Your task to perform on an android device: open app "Roku - Official Remote Control" (install if not already installed) and enter user name: "autumnal@gmail.com" and password: "stuffing" Image 0: 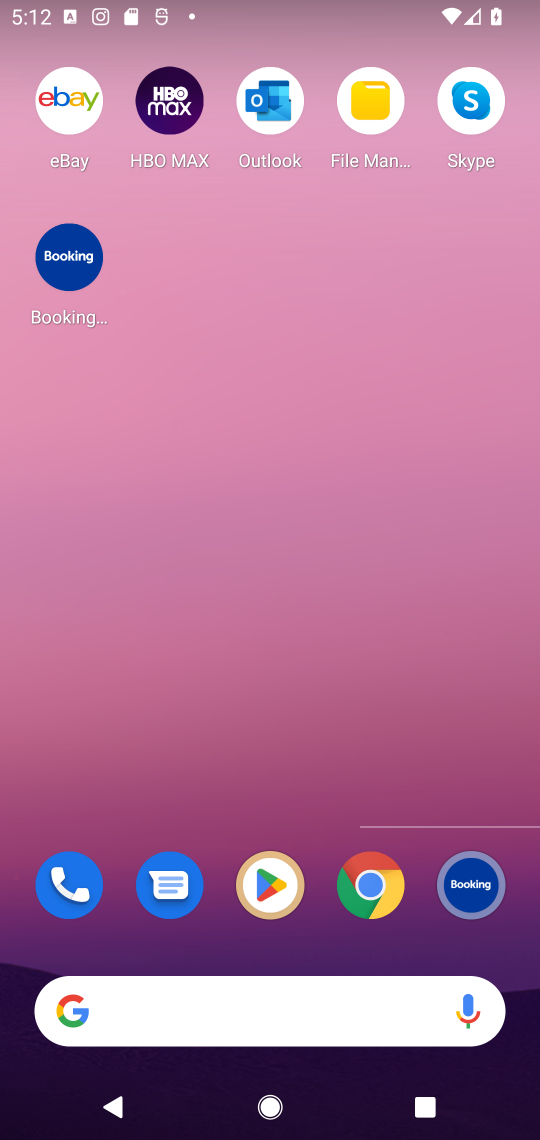
Step 0: press home button
Your task to perform on an android device: open app "Roku - Official Remote Control" (install if not already installed) and enter user name: "autumnal@gmail.com" and password: "stuffing" Image 1: 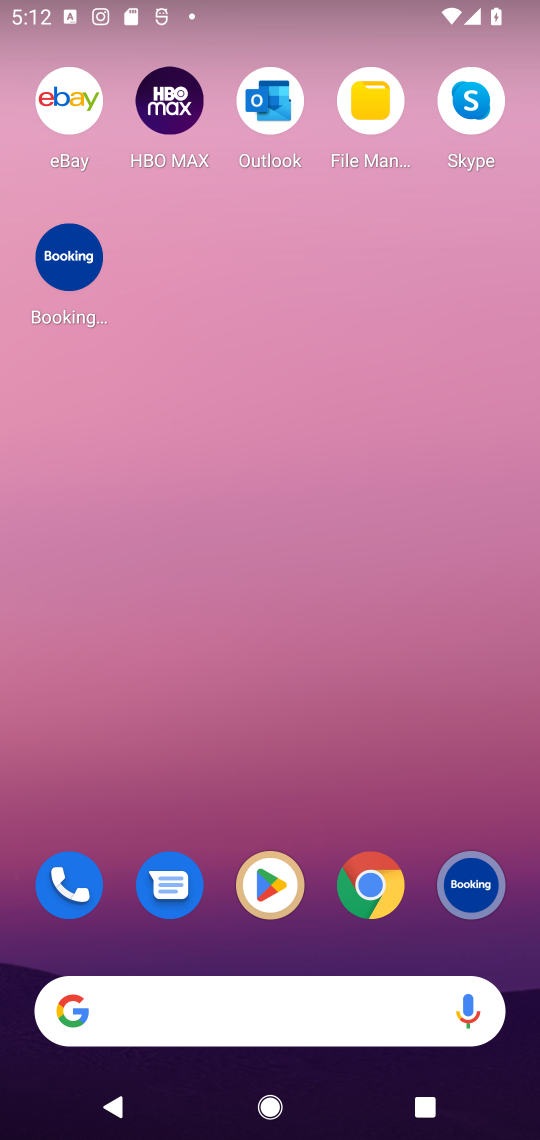
Step 1: click (262, 878)
Your task to perform on an android device: open app "Roku - Official Remote Control" (install if not already installed) and enter user name: "autumnal@gmail.com" and password: "stuffing" Image 2: 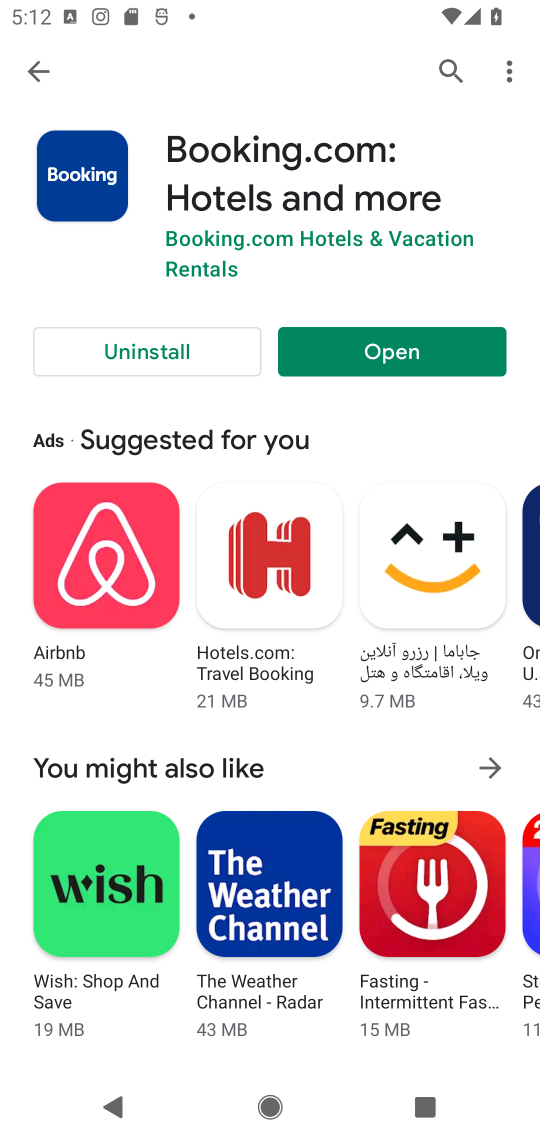
Step 2: click (444, 73)
Your task to perform on an android device: open app "Roku - Official Remote Control" (install if not already installed) and enter user name: "autumnal@gmail.com" and password: "stuffing" Image 3: 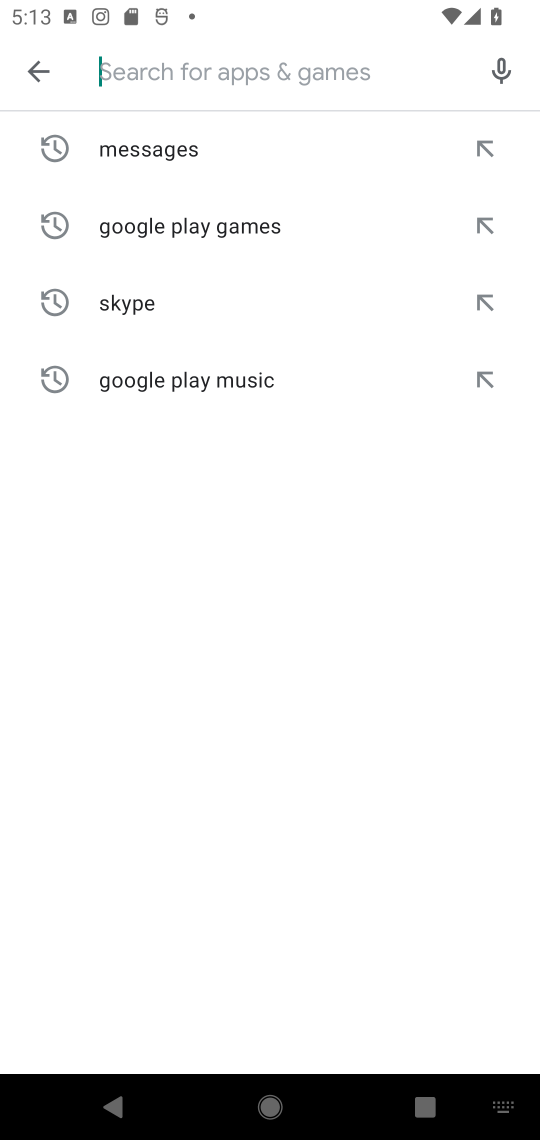
Step 3: type "Roku - Official Remote Control"
Your task to perform on an android device: open app "Roku - Official Remote Control" (install if not already installed) and enter user name: "autumnal@gmail.com" and password: "stuffing" Image 4: 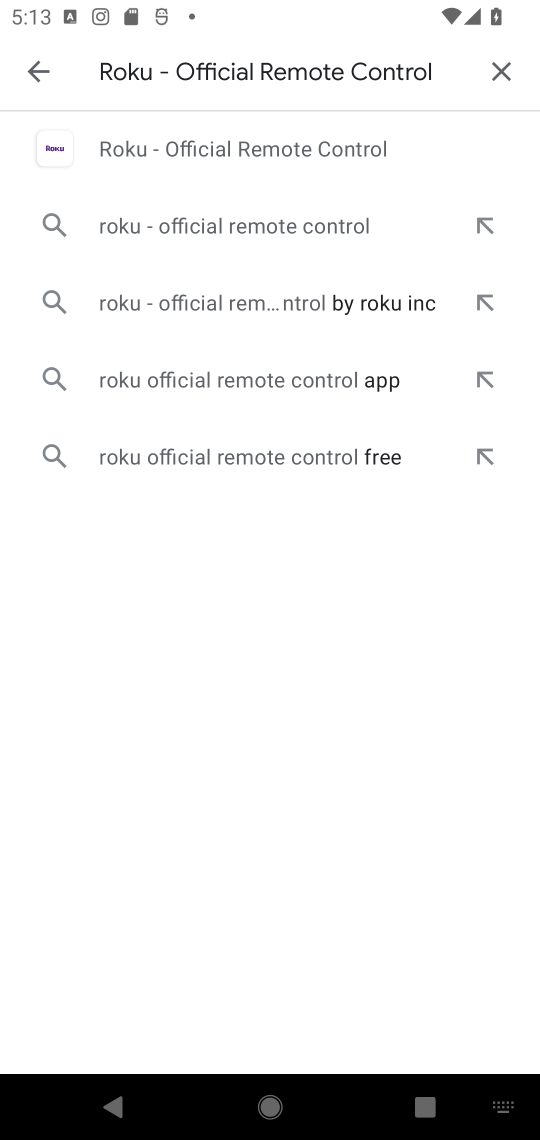
Step 4: click (271, 148)
Your task to perform on an android device: open app "Roku - Official Remote Control" (install if not already installed) and enter user name: "autumnal@gmail.com" and password: "stuffing" Image 5: 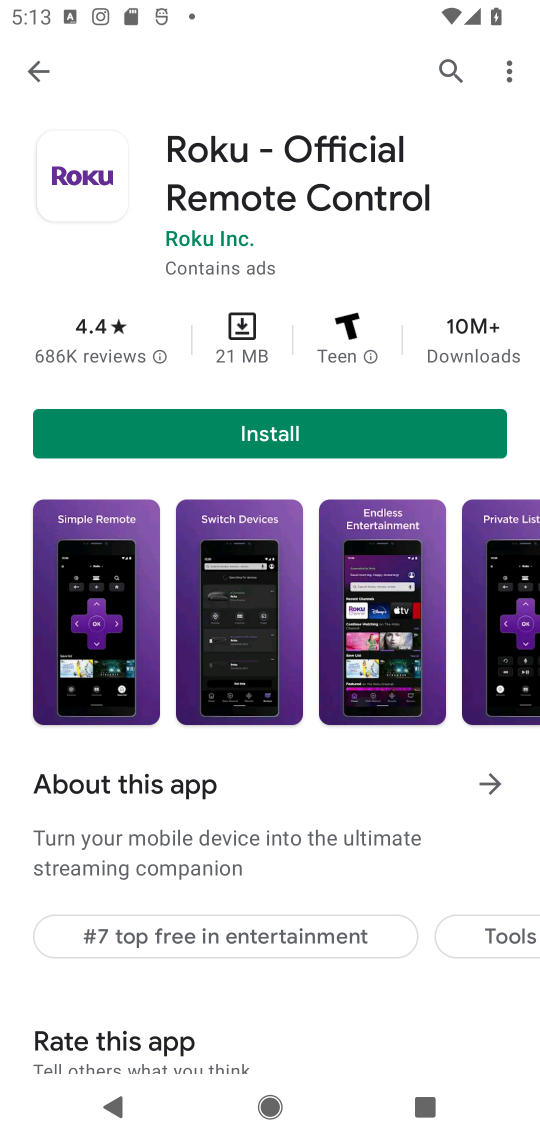
Step 5: click (299, 418)
Your task to perform on an android device: open app "Roku - Official Remote Control" (install if not already installed) and enter user name: "autumnal@gmail.com" and password: "stuffing" Image 6: 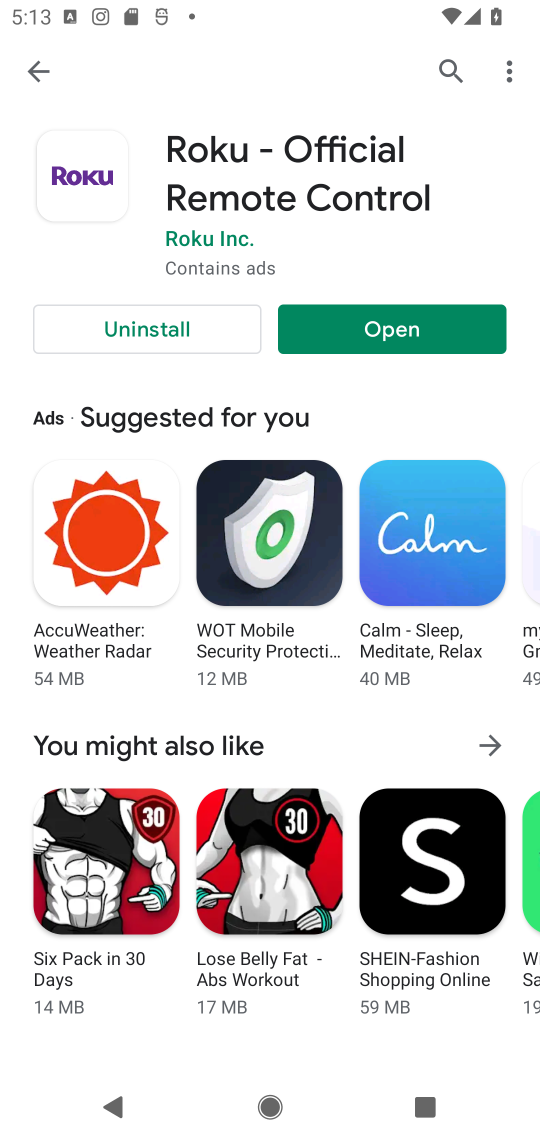
Step 6: click (397, 341)
Your task to perform on an android device: open app "Roku - Official Remote Control" (install if not already installed) and enter user name: "autumnal@gmail.com" and password: "stuffing" Image 7: 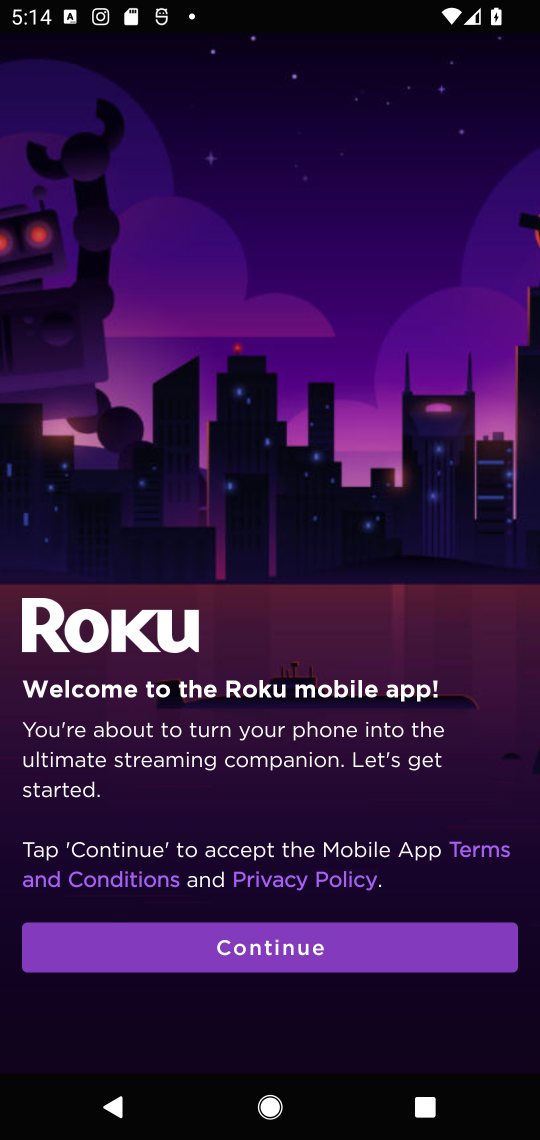
Step 7: click (322, 954)
Your task to perform on an android device: open app "Roku - Official Remote Control" (install if not already installed) and enter user name: "autumnal@gmail.com" and password: "stuffing" Image 8: 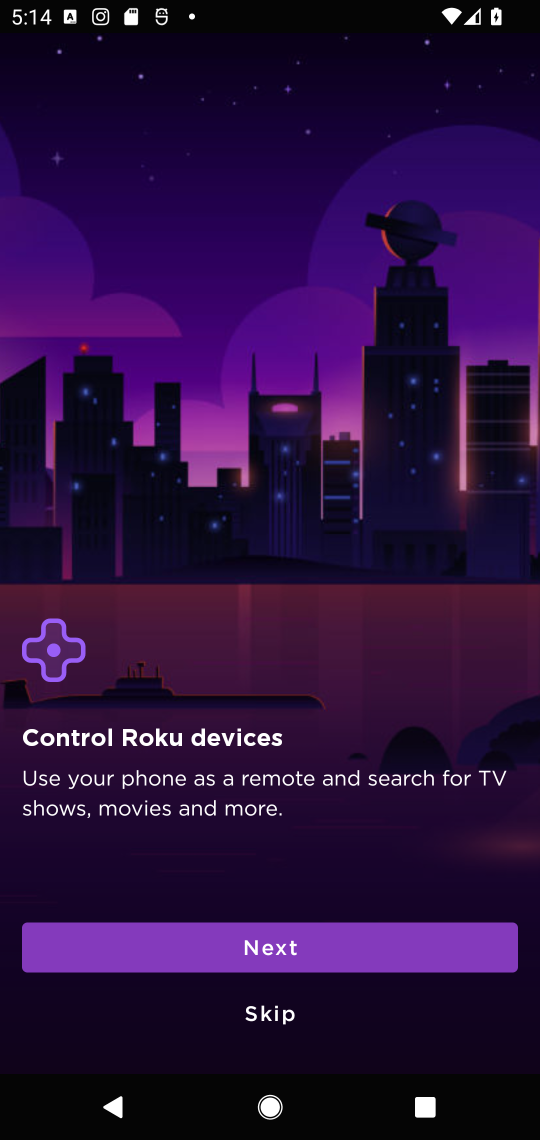
Step 8: click (273, 1026)
Your task to perform on an android device: open app "Roku - Official Remote Control" (install if not already installed) and enter user name: "autumnal@gmail.com" and password: "stuffing" Image 9: 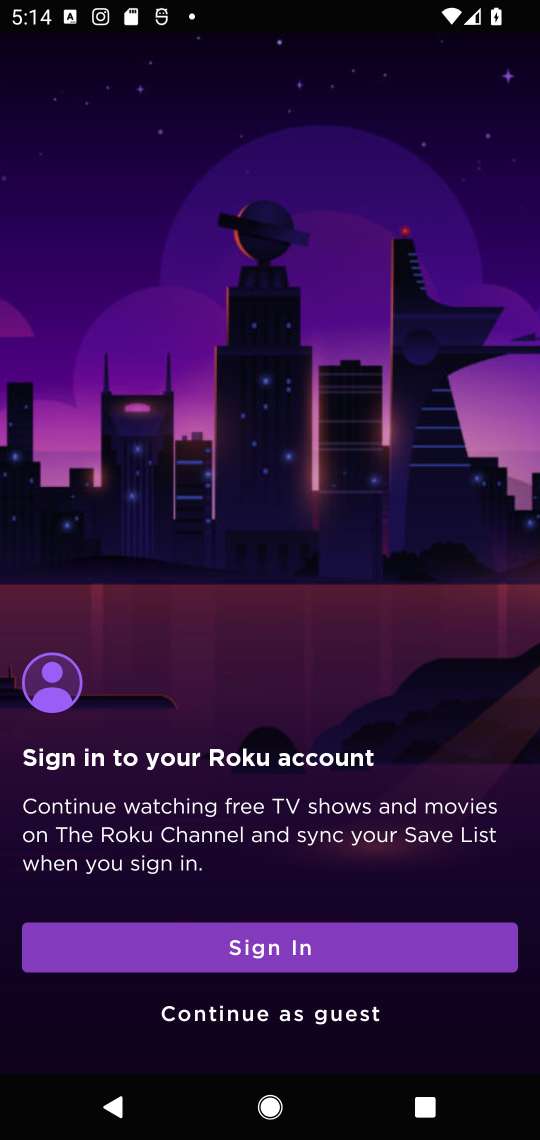
Step 9: click (277, 960)
Your task to perform on an android device: open app "Roku - Official Remote Control" (install if not already installed) and enter user name: "autumnal@gmail.com" and password: "stuffing" Image 10: 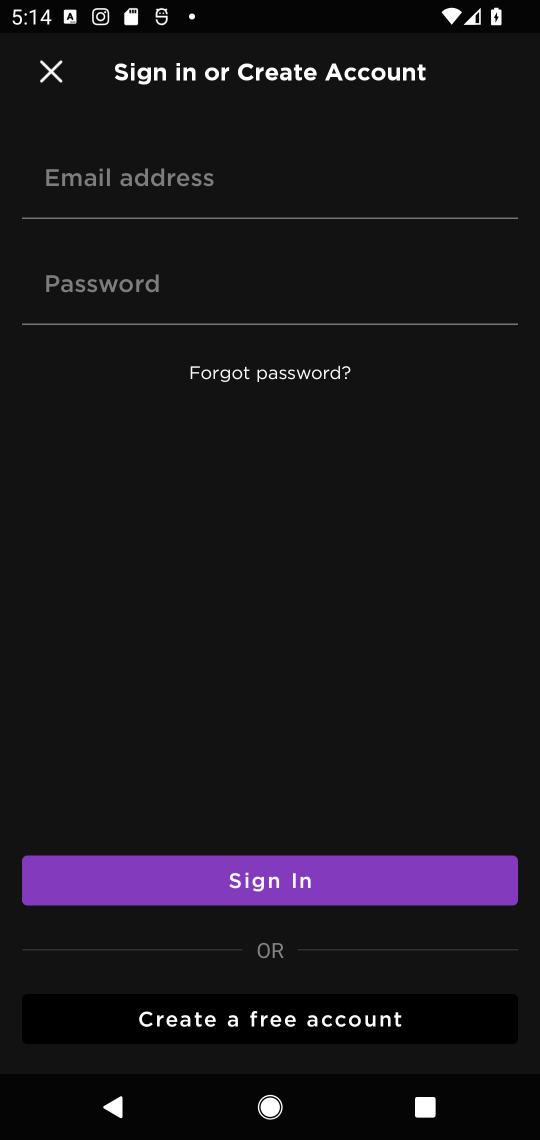
Step 10: click (191, 191)
Your task to perform on an android device: open app "Roku - Official Remote Control" (install if not already installed) and enter user name: "autumnal@gmail.com" and password: "stuffing" Image 11: 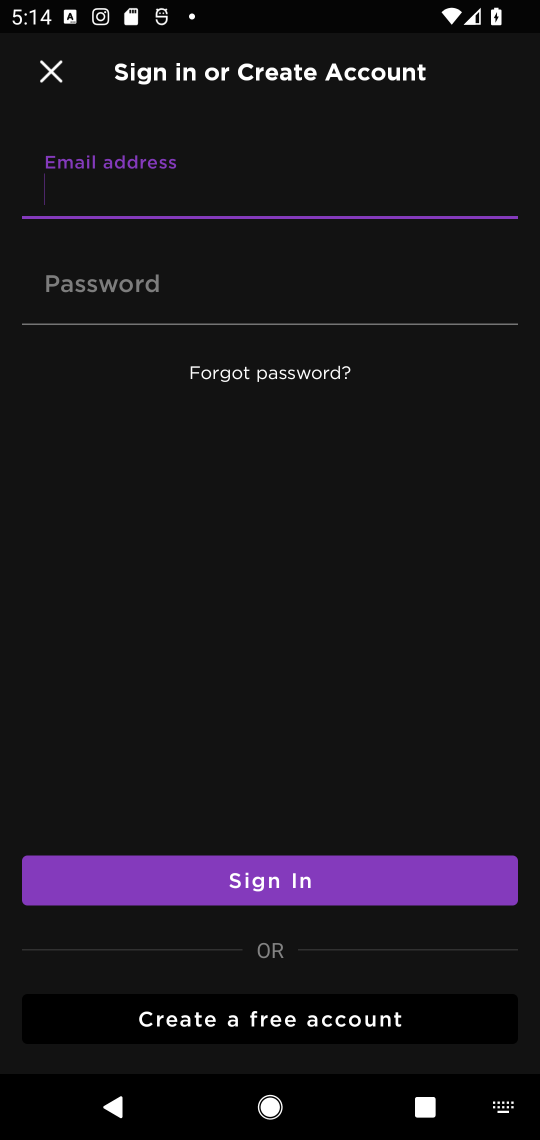
Step 11: click (181, 179)
Your task to perform on an android device: open app "Roku - Official Remote Control" (install if not already installed) and enter user name: "autumnal@gmail.com" and password: "stuffing" Image 12: 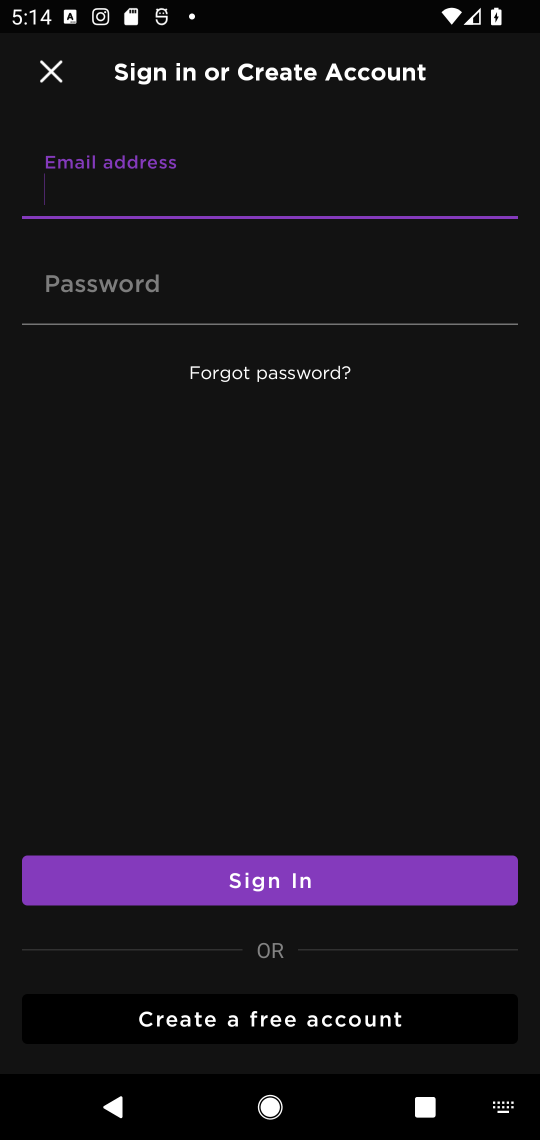
Step 12: type "autumnal@gmail.com"
Your task to perform on an android device: open app "Roku - Official Remote Control" (install if not already installed) and enter user name: "autumnal@gmail.com" and password: "stuffing" Image 13: 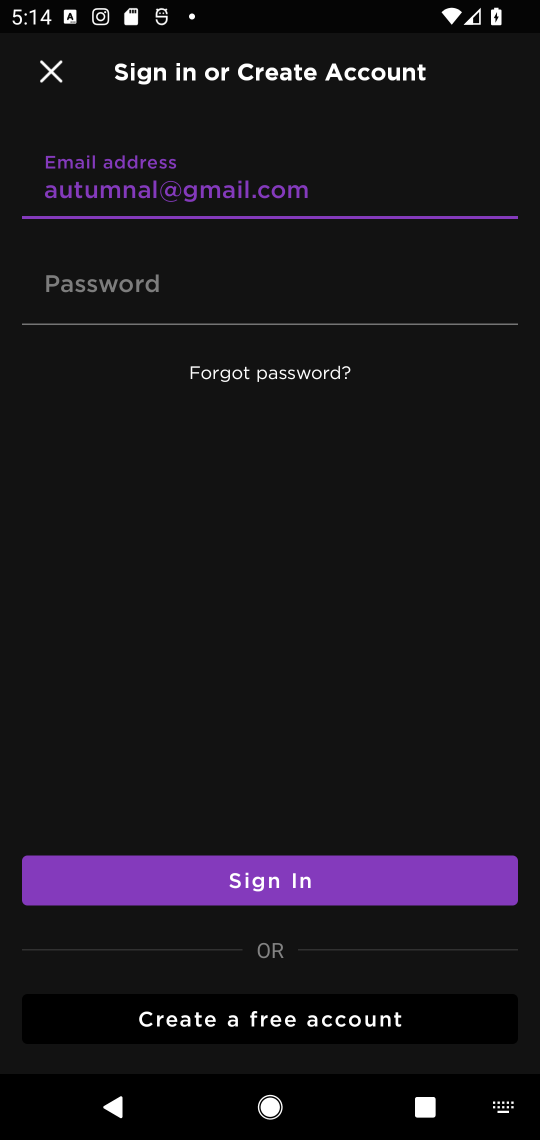
Step 13: click (163, 266)
Your task to perform on an android device: open app "Roku - Official Remote Control" (install if not already installed) and enter user name: "autumnal@gmail.com" and password: "stuffing" Image 14: 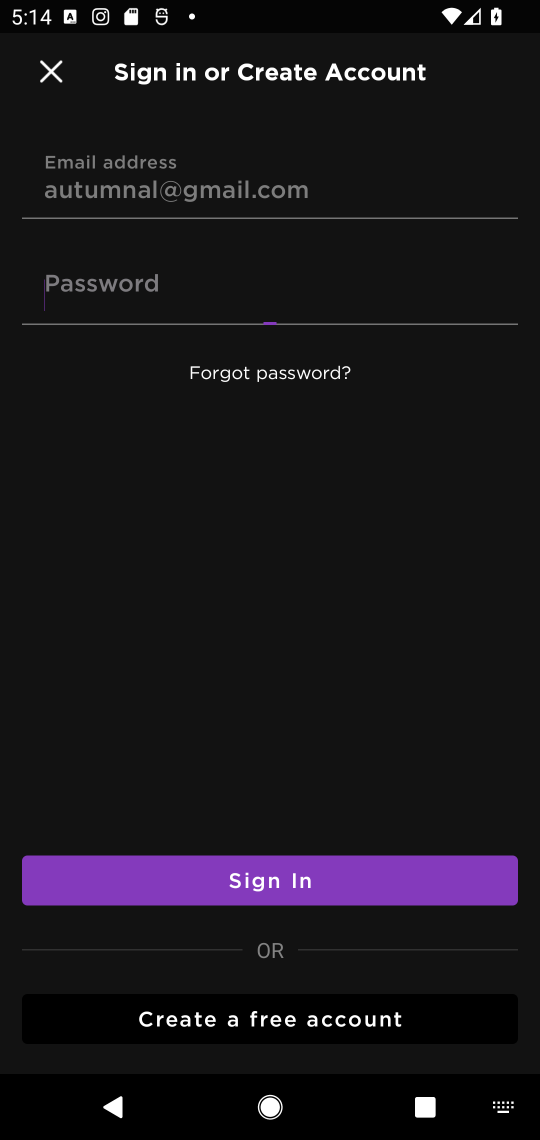
Step 14: click (161, 272)
Your task to perform on an android device: open app "Roku - Official Remote Control" (install if not already installed) and enter user name: "autumnal@gmail.com" and password: "stuffing" Image 15: 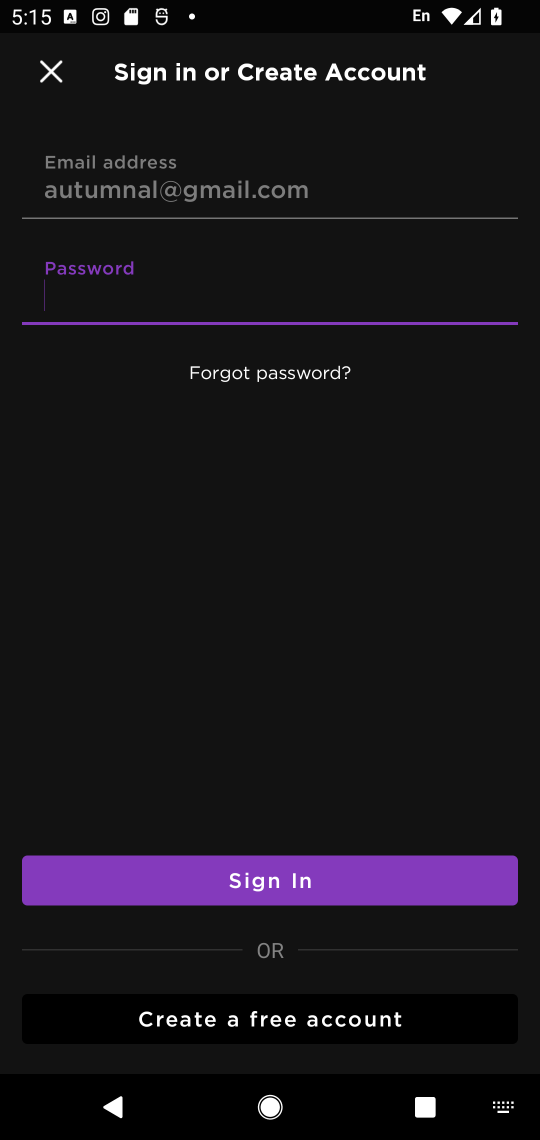
Step 15: type "stuffing"
Your task to perform on an android device: open app "Roku - Official Remote Control" (install if not already installed) and enter user name: "autumnal@gmail.com" and password: "stuffing" Image 16: 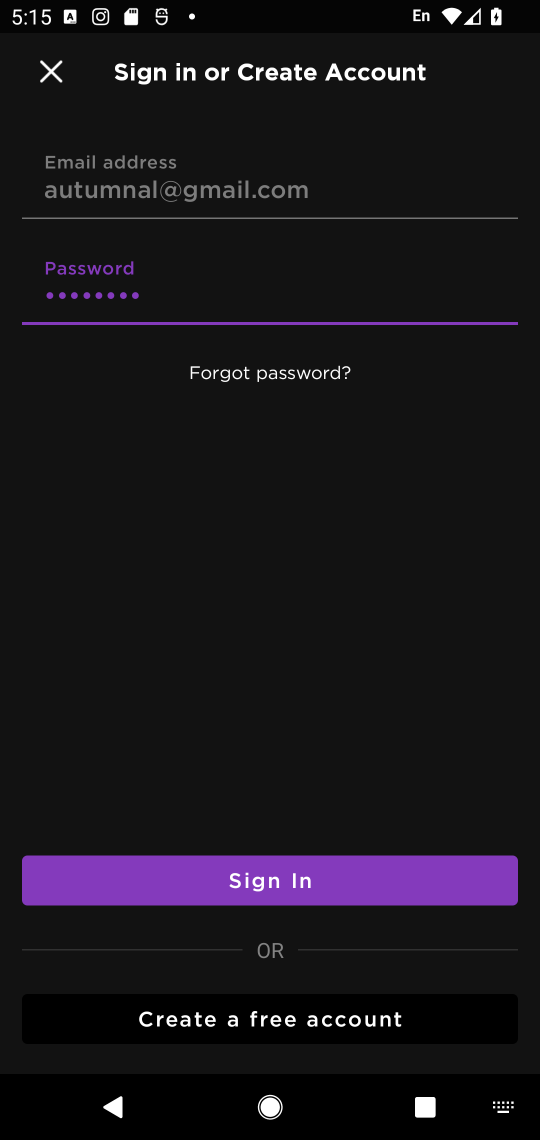
Step 16: click (260, 886)
Your task to perform on an android device: open app "Roku - Official Remote Control" (install if not already installed) and enter user name: "autumnal@gmail.com" and password: "stuffing" Image 17: 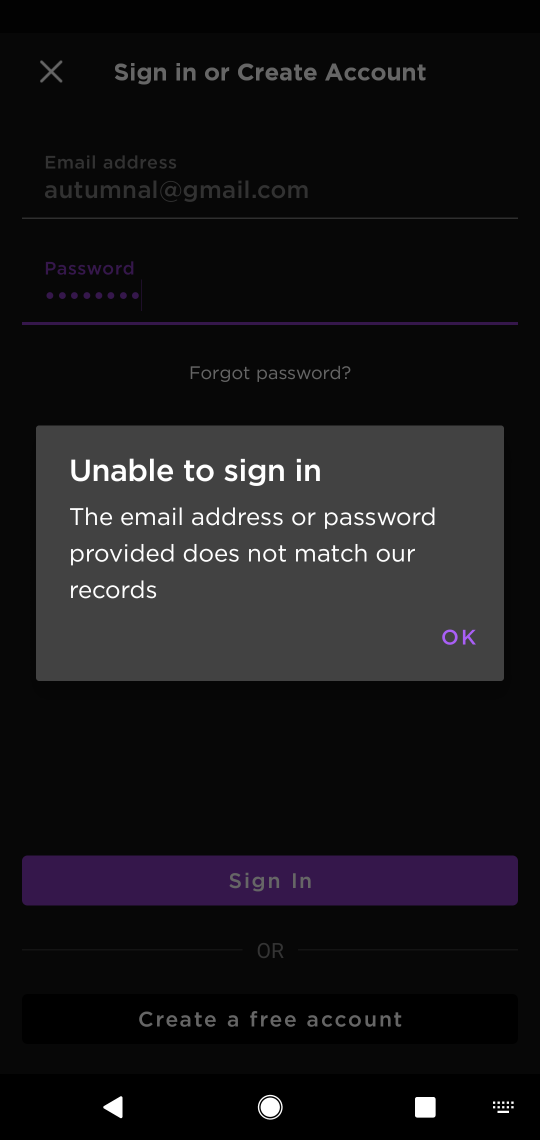
Step 17: task complete